Your task to perform on an android device: open chrome privacy settings Image 0: 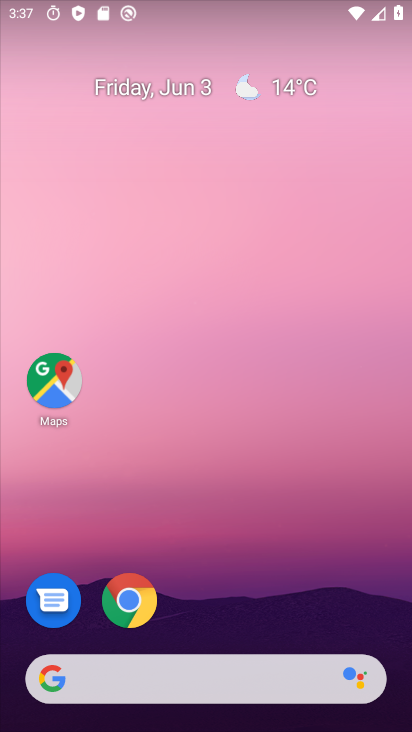
Step 0: drag from (313, 529) to (132, 25)
Your task to perform on an android device: open chrome privacy settings Image 1: 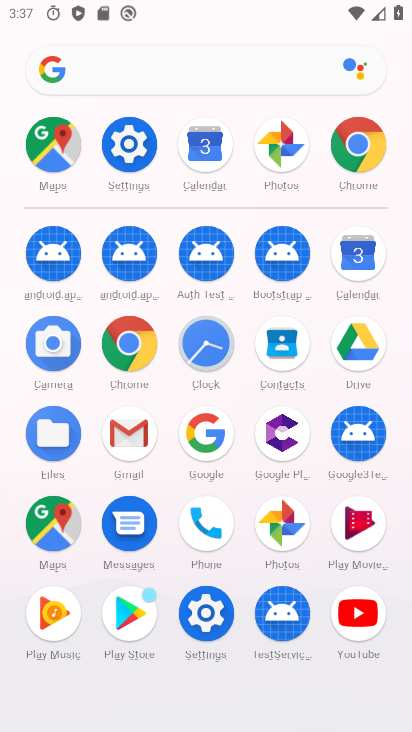
Step 1: click (126, 342)
Your task to perform on an android device: open chrome privacy settings Image 2: 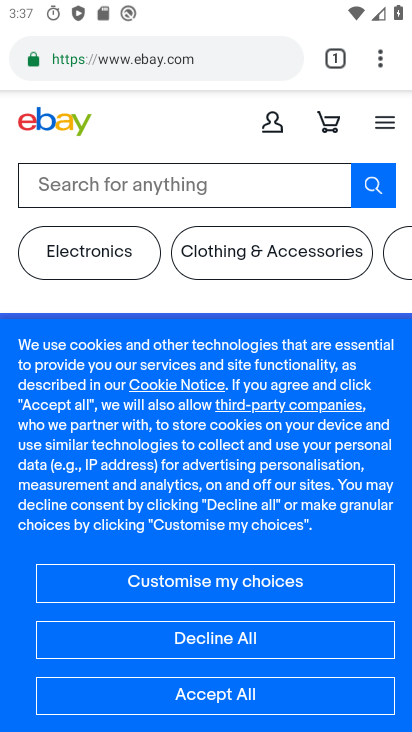
Step 2: drag from (377, 53) to (177, 621)
Your task to perform on an android device: open chrome privacy settings Image 3: 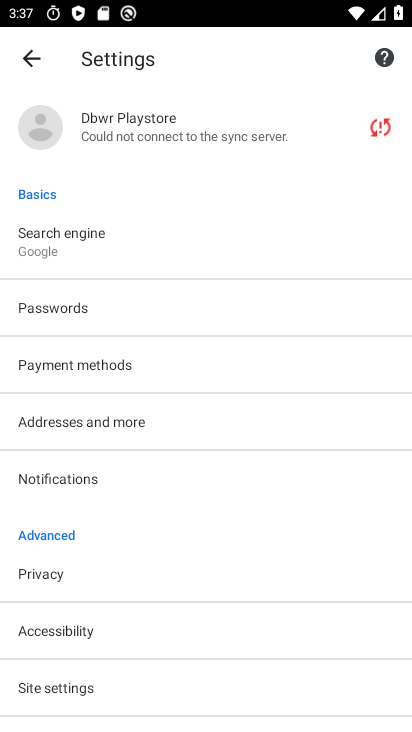
Step 3: click (99, 583)
Your task to perform on an android device: open chrome privacy settings Image 4: 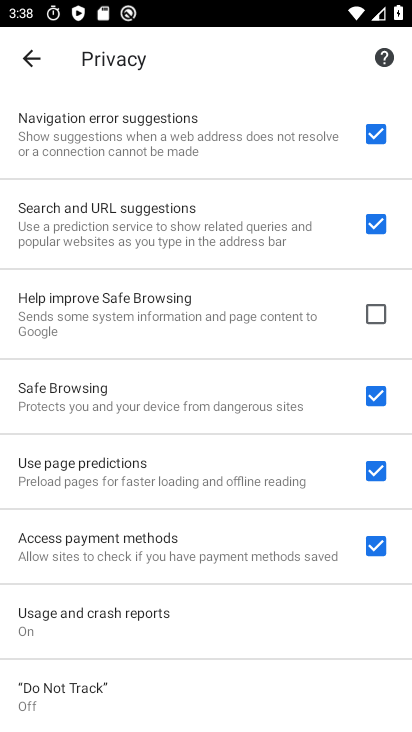
Step 4: task complete